Your task to perform on an android device: Open location settings Image 0: 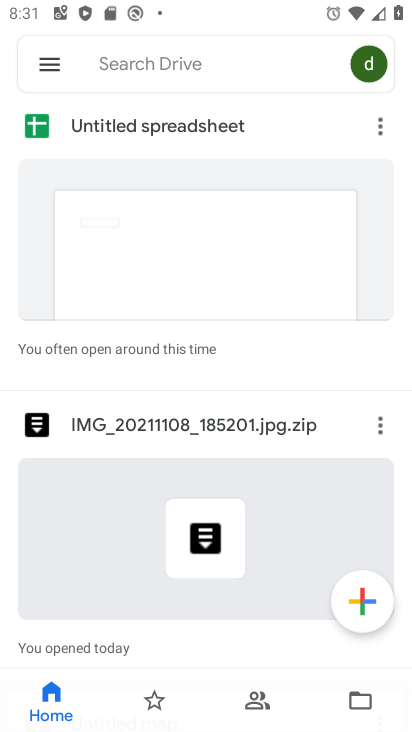
Step 0: press home button
Your task to perform on an android device: Open location settings Image 1: 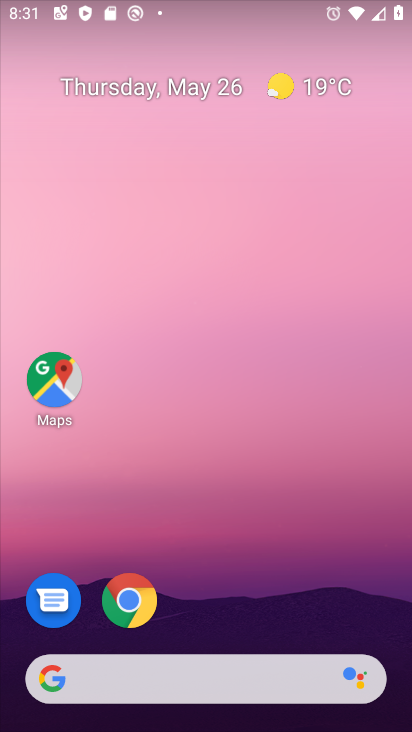
Step 1: drag from (221, 629) to (290, 206)
Your task to perform on an android device: Open location settings Image 2: 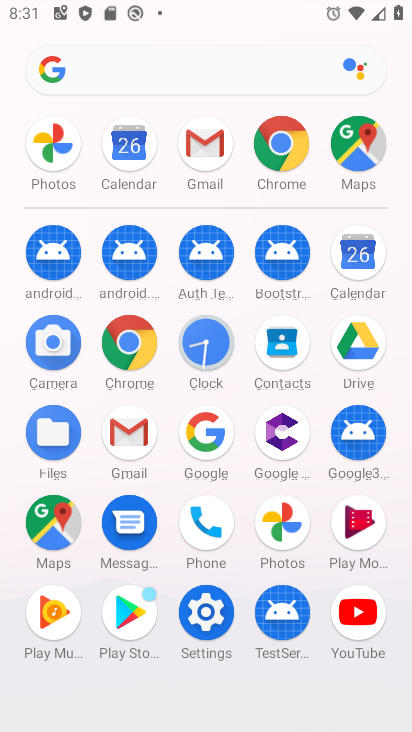
Step 2: click (206, 621)
Your task to perform on an android device: Open location settings Image 3: 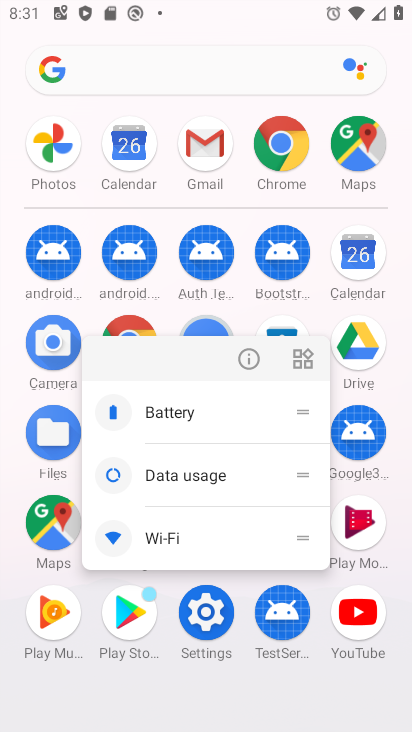
Step 3: click (214, 627)
Your task to perform on an android device: Open location settings Image 4: 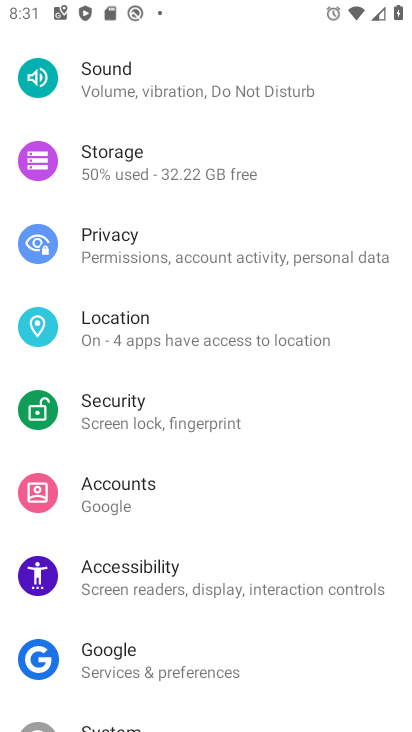
Step 4: click (105, 319)
Your task to perform on an android device: Open location settings Image 5: 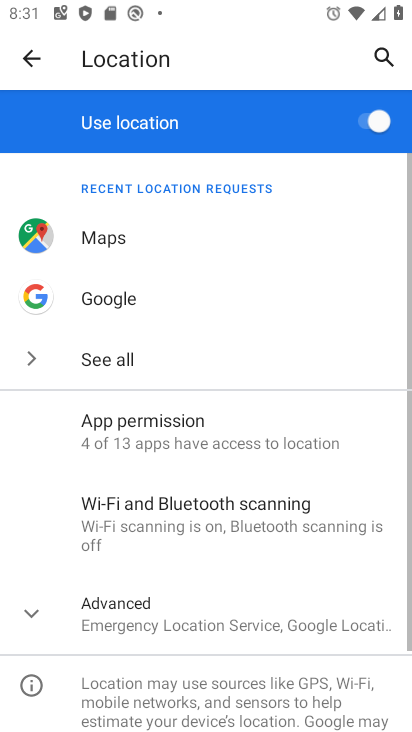
Step 5: click (121, 612)
Your task to perform on an android device: Open location settings Image 6: 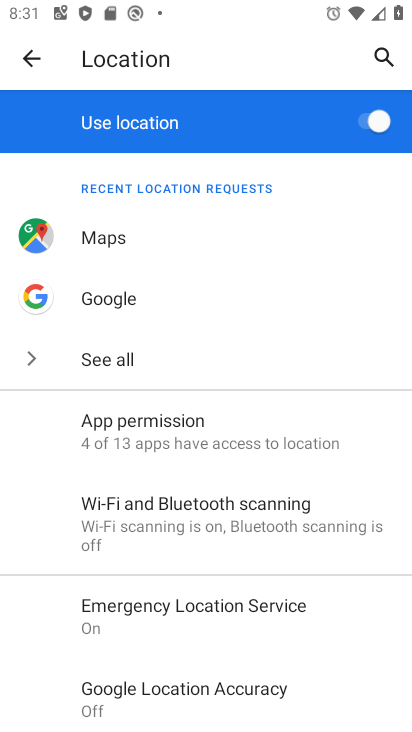
Step 6: task complete